Your task to perform on an android device: find snoozed emails in the gmail app Image 0: 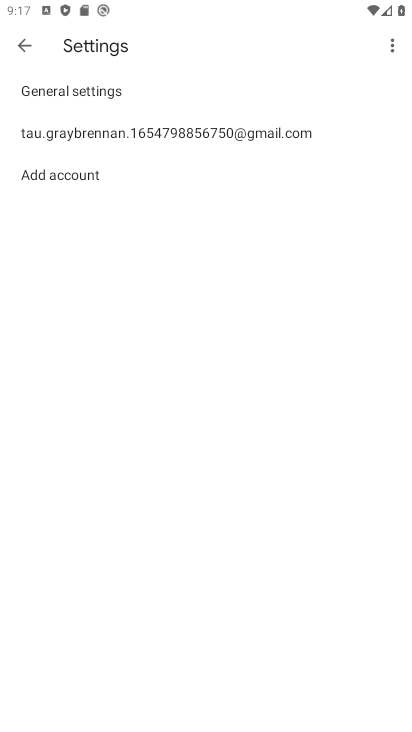
Step 0: press home button
Your task to perform on an android device: find snoozed emails in the gmail app Image 1: 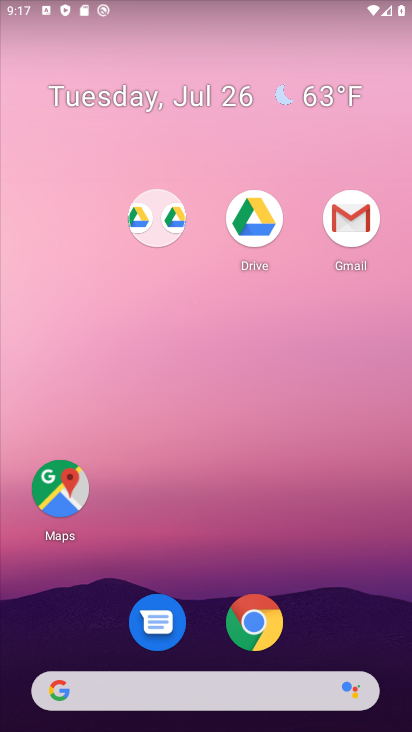
Step 1: click (355, 276)
Your task to perform on an android device: find snoozed emails in the gmail app Image 2: 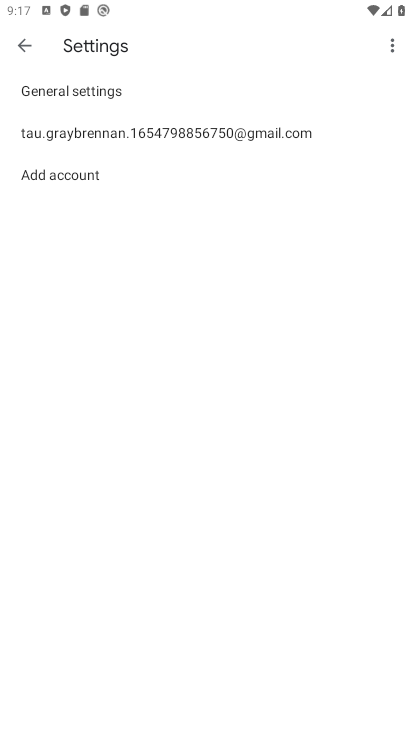
Step 2: click (9, 49)
Your task to perform on an android device: find snoozed emails in the gmail app Image 3: 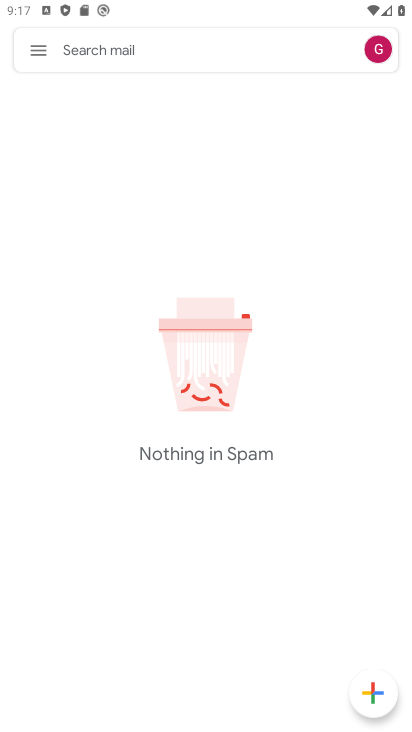
Step 3: click (44, 50)
Your task to perform on an android device: find snoozed emails in the gmail app Image 4: 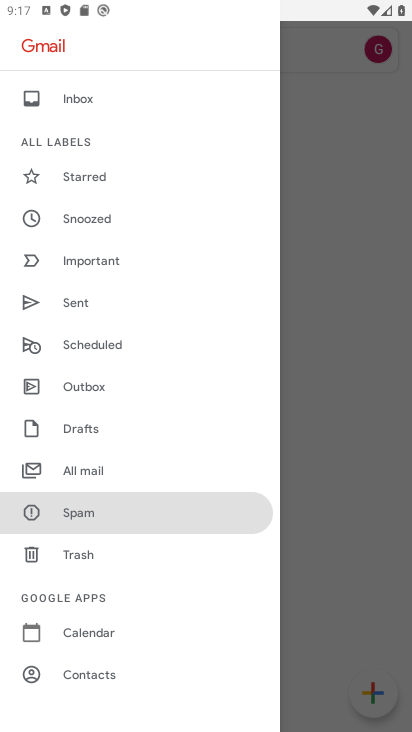
Step 4: click (51, 499)
Your task to perform on an android device: find snoozed emails in the gmail app Image 5: 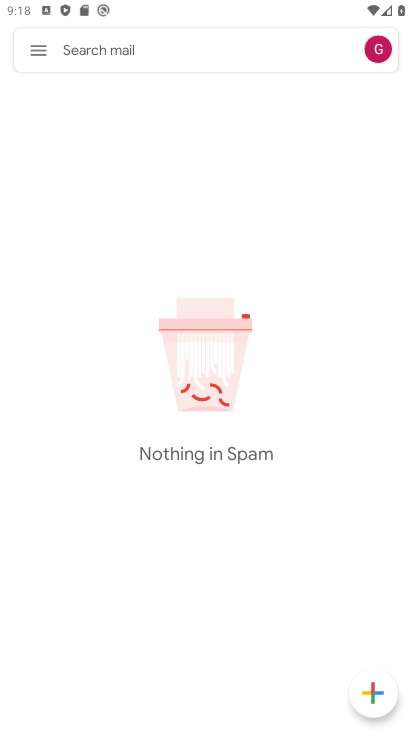
Step 5: click (45, 50)
Your task to perform on an android device: find snoozed emails in the gmail app Image 6: 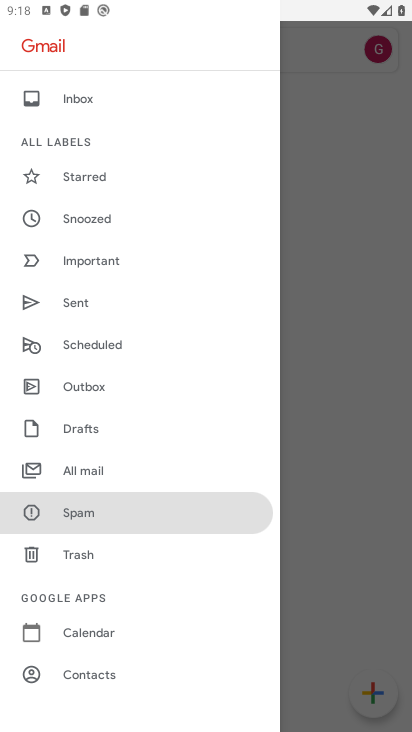
Step 6: click (74, 225)
Your task to perform on an android device: find snoozed emails in the gmail app Image 7: 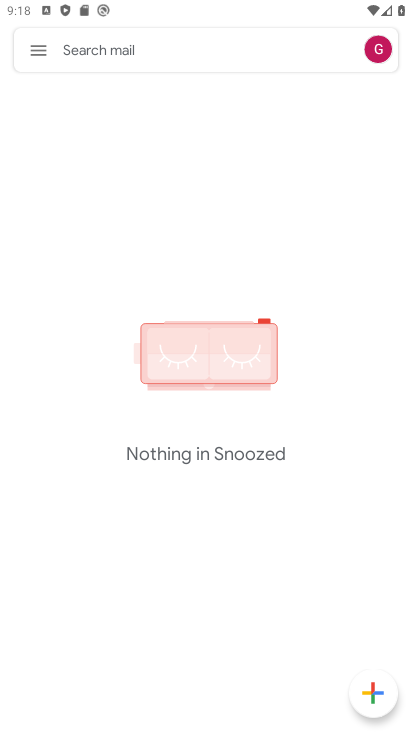
Step 7: task complete